Your task to perform on an android device: delete a single message in the gmail app Image 0: 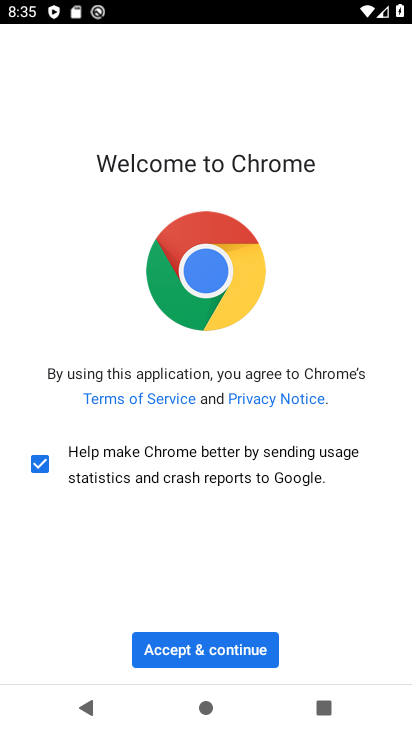
Step 0: press back button
Your task to perform on an android device: delete a single message in the gmail app Image 1: 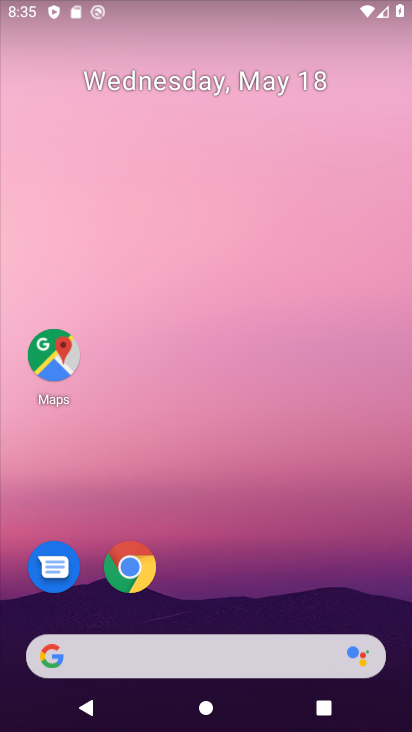
Step 1: drag from (251, 602) to (159, 23)
Your task to perform on an android device: delete a single message in the gmail app Image 2: 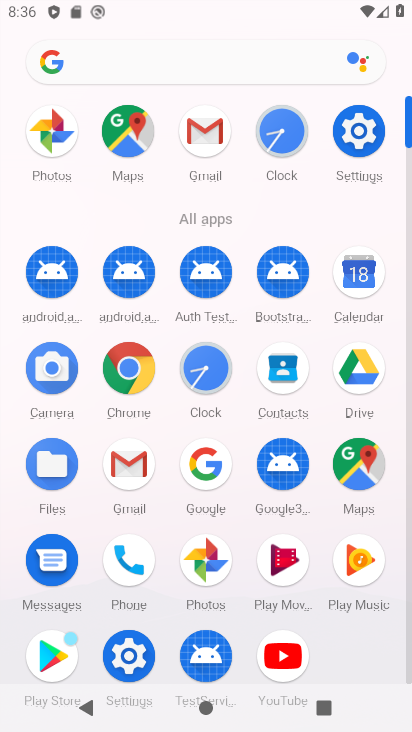
Step 2: click (203, 133)
Your task to perform on an android device: delete a single message in the gmail app Image 3: 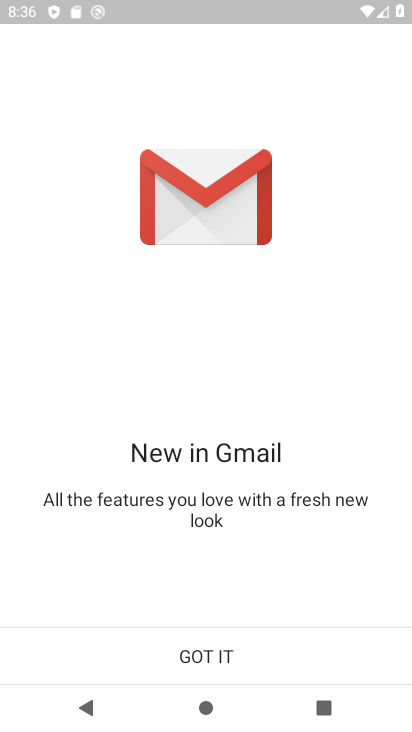
Step 3: click (209, 657)
Your task to perform on an android device: delete a single message in the gmail app Image 4: 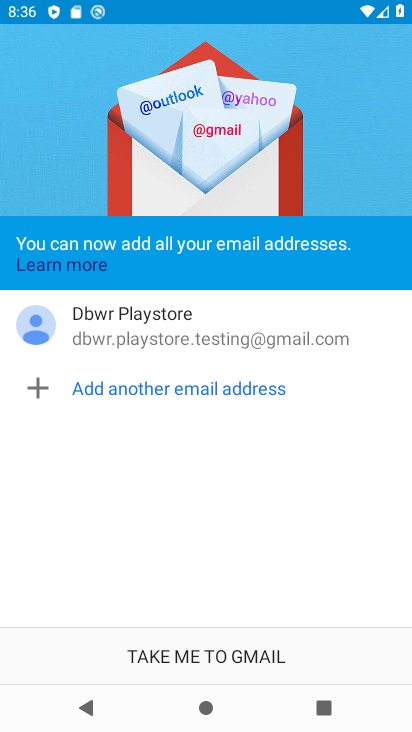
Step 4: click (209, 657)
Your task to perform on an android device: delete a single message in the gmail app Image 5: 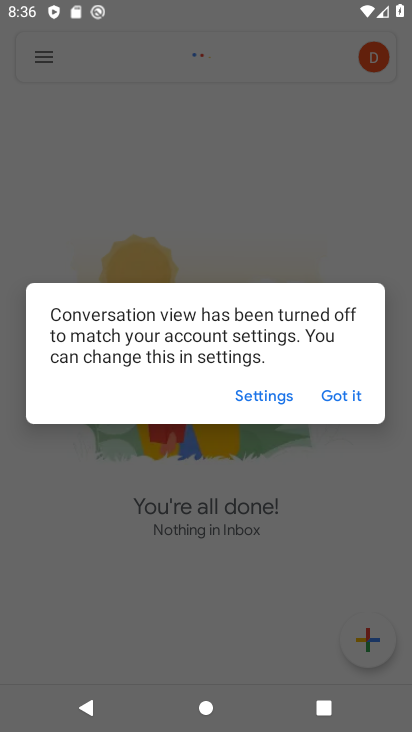
Step 5: click (337, 396)
Your task to perform on an android device: delete a single message in the gmail app Image 6: 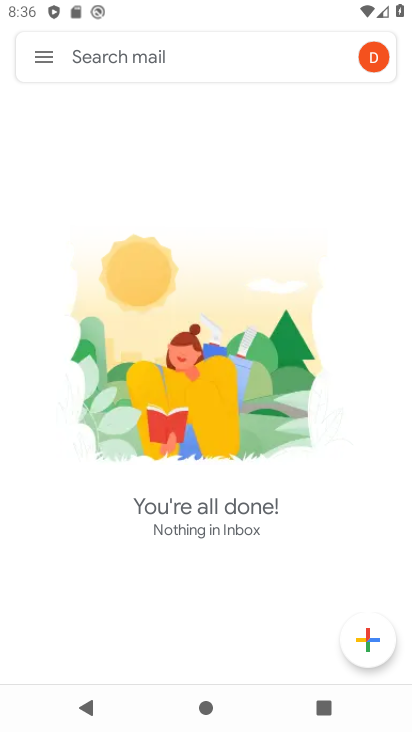
Step 6: click (37, 58)
Your task to perform on an android device: delete a single message in the gmail app Image 7: 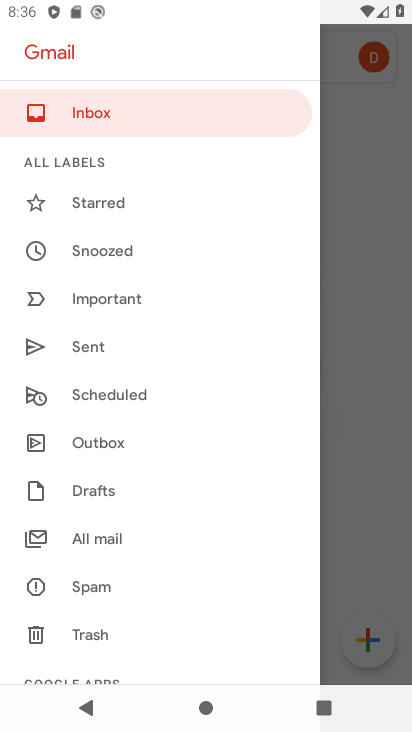
Step 7: drag from (117, 405) to (127, 333)
Your task to perform on an android device: delete a single message in the gmail app Image 8: 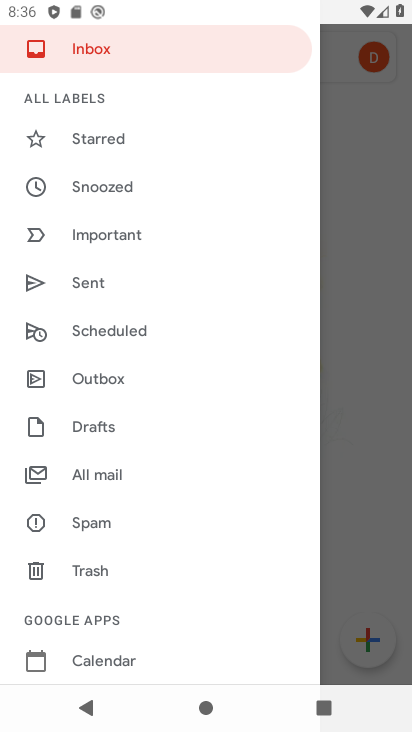
Step 8: drag from (134, 406) to (170, 321)
Your task to perform on an android device: delete a single message in the gmail app Image 9: 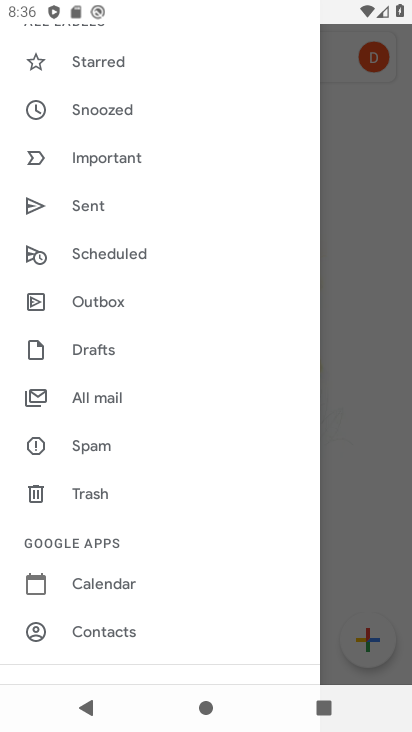
Step 9: click (112, 395)
Your task to perform on an android device: delete a single message in the gmail app Image 10: 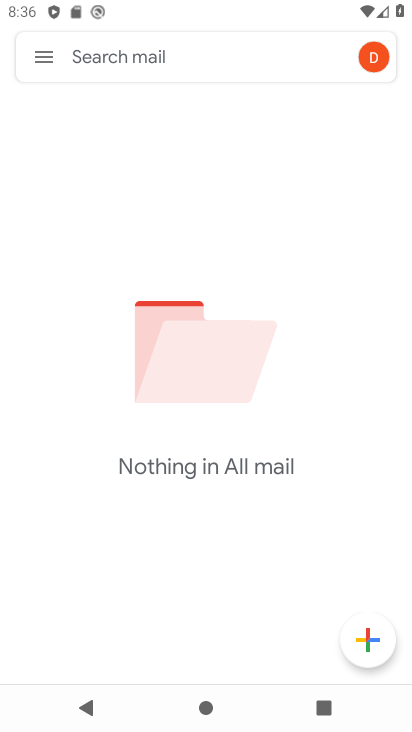
Step 10: task complete